Your task to perform on an android device: turn pop-ups on in chrome Image 0: 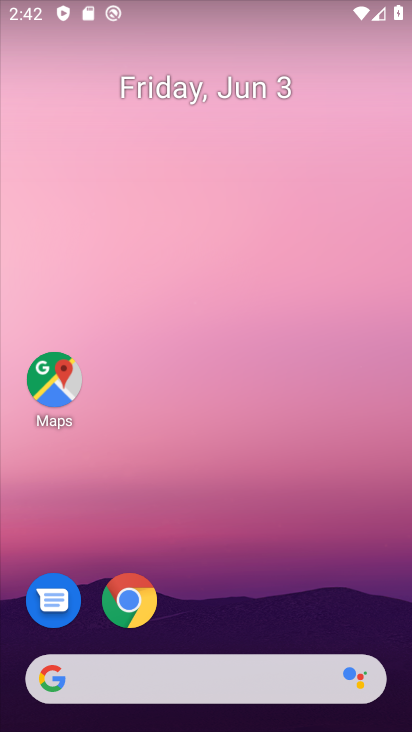
Step 0: click (132, 617)
Your task to perform on an android device: turn pop-ups on in chrome Image 1: 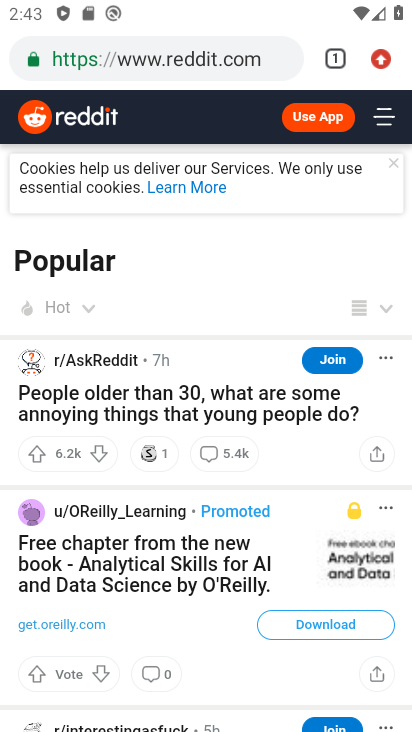
Step 1: click (385, 65)
Your task to perform on an android device: turn pop-ups on in chrome Image 2: 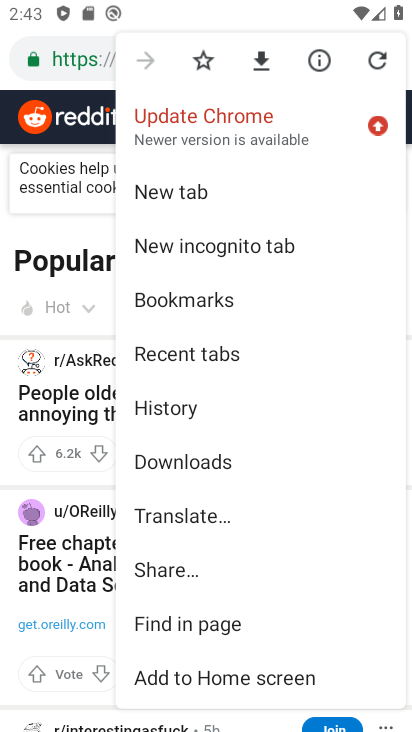
Step 2: drag from (220, 615) to (228, 263)
Your task to perform on an android device: turn pop-ups on in chrome Image 3: 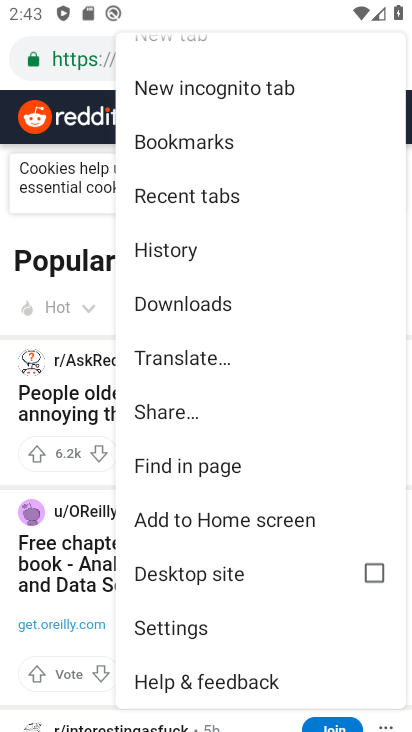
Step 3: click (173, 623)
Your task to perform on an android device: turn pop-ups on in chrome Image 4: 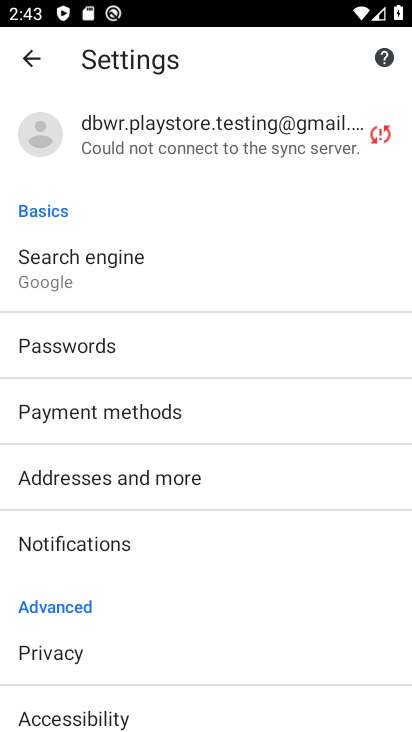
Step 4: drag from (172, 619) to (197, 94)
Your task to perform on an android device: turn pop-ups on in chrome Image 5: 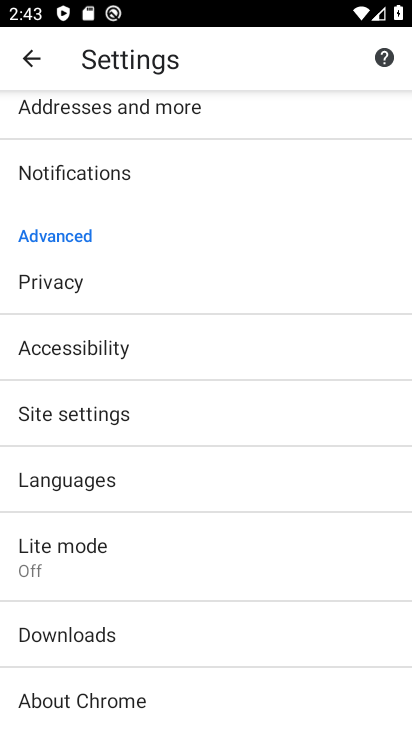
Step 5: click (98, 420)
Your task to perform on an android device: turn pop-ups on in chrome Image 6: 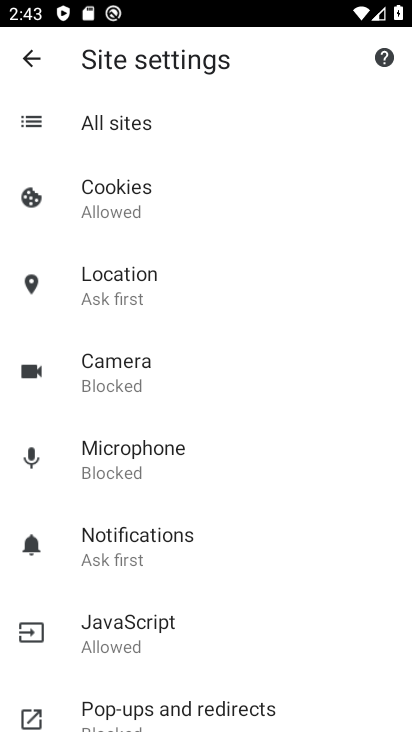
Step 6: click (200, 706)
Your task to perform on an android device: turn pop-ups on in chrome Image 7: 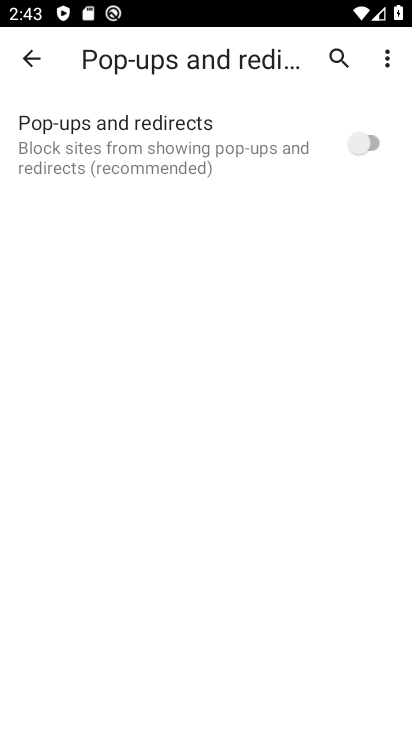
Step 7: click (375, 133)
Your task to perform on an android device: turn pop-ups on in chrome Image 8: 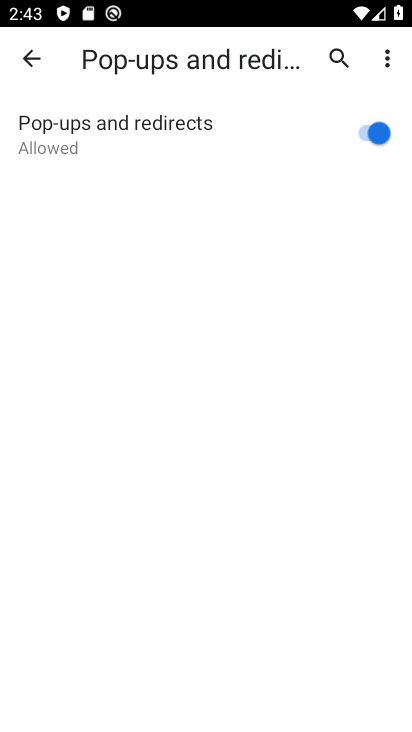
Step 8: task complete